Your task to perform on an android device: turn off notifications in google photos Image 0: 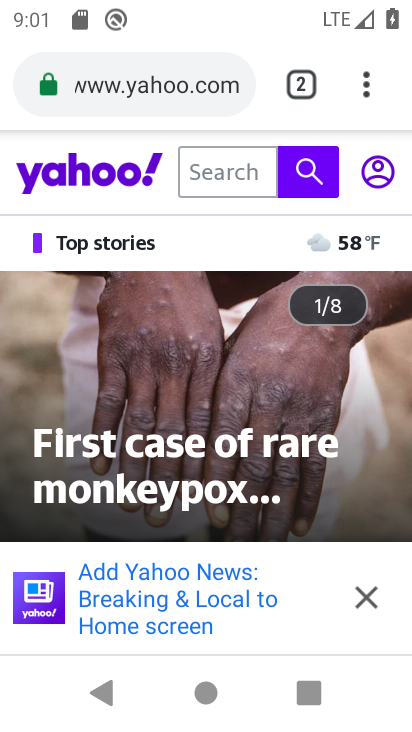
Step 0: press home button
Your task to perform on an android device: turn off notifications in google photos Image 1: 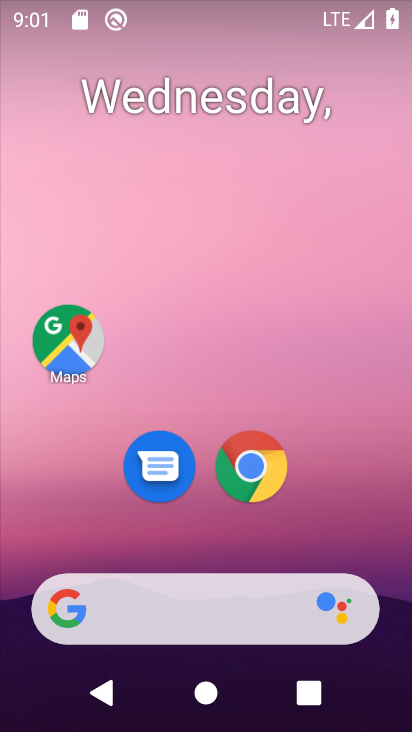
Step 1: drag from (153, 720) to (128, 233)
Your task to perform on an android device: turn off notifications in google photos Image 2: 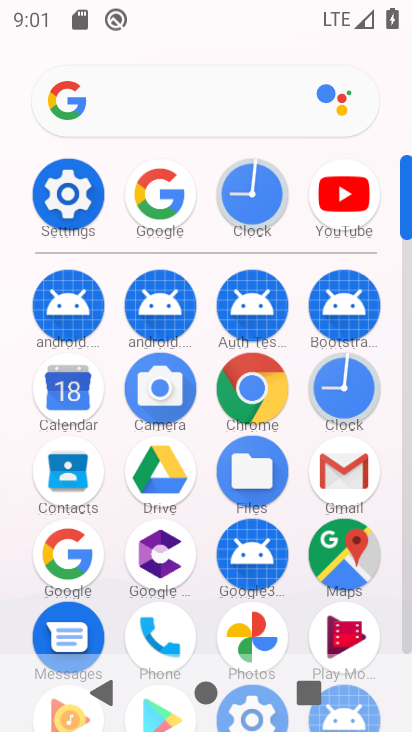
Step 2: click (236, 633)
Your task to perform on an android device: turn off notifications in google photos Image 3: 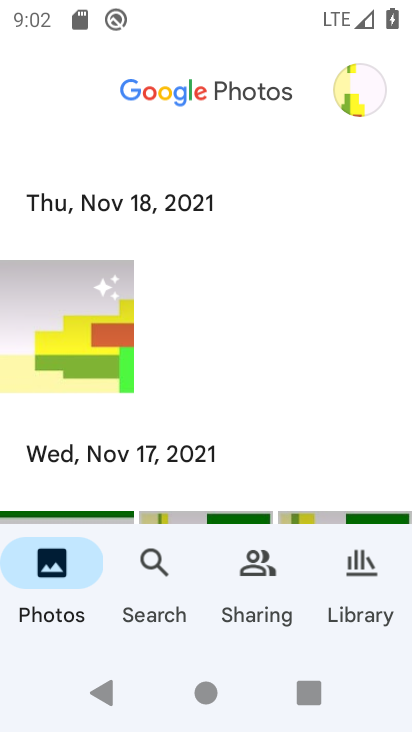
Step 3: click (359, 96)
Your task to perform on an android device: turn off notifications in google photos Image 4: 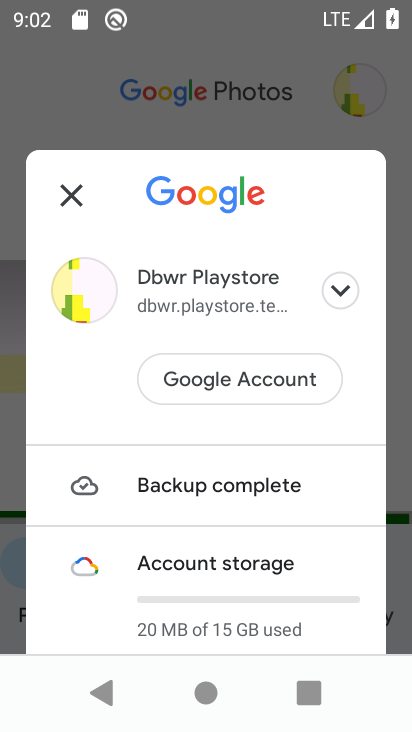
Step 4: drag from (138, 615) to (133, 237)
Your task to perform on an android device: turn off notifications in google photos Image 5: 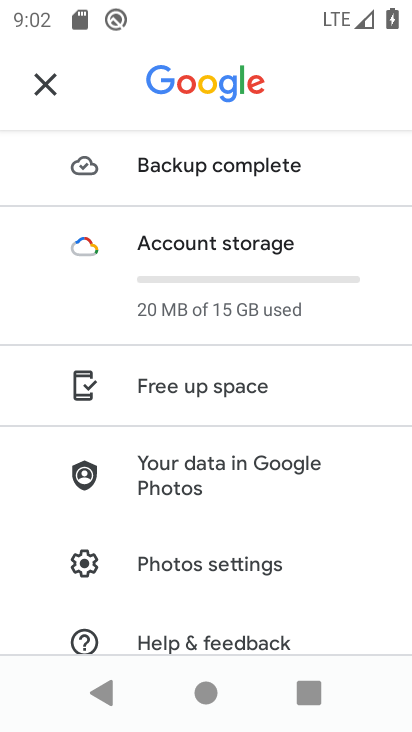
Step 5: drag from (207, 627) to (218, 286)
Your task to perform on an android device: turn off notifications in google photos Image 6: 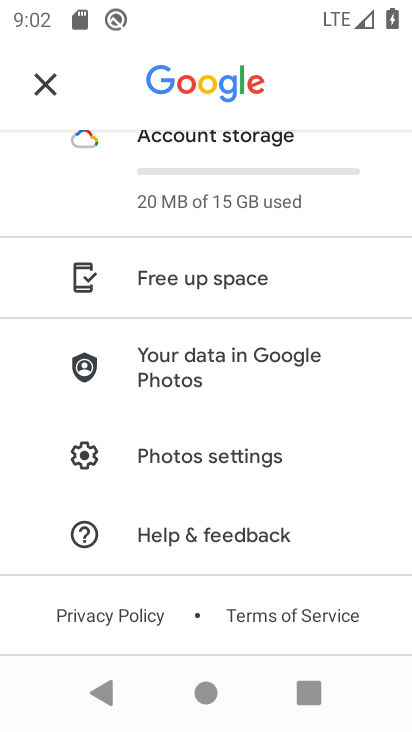
Step 6: drag from (180, 595) to (179, 284)
Your task to perform on an android device: turn off notifications in google photos Image 7: 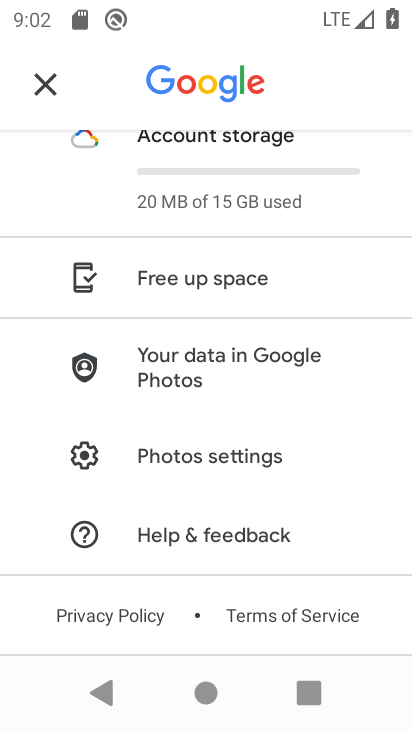
Step 7: drag from (138, 613) to (154, 351)
Your task to perform on an android device: turn off notifications in google photos Image 8: 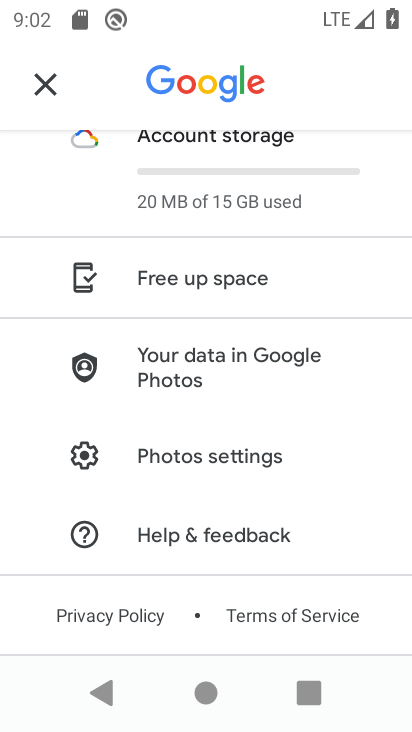
Step 8: click (206, 457)
Your task to perform on an android device: turn off notifications in google photos Image 9: 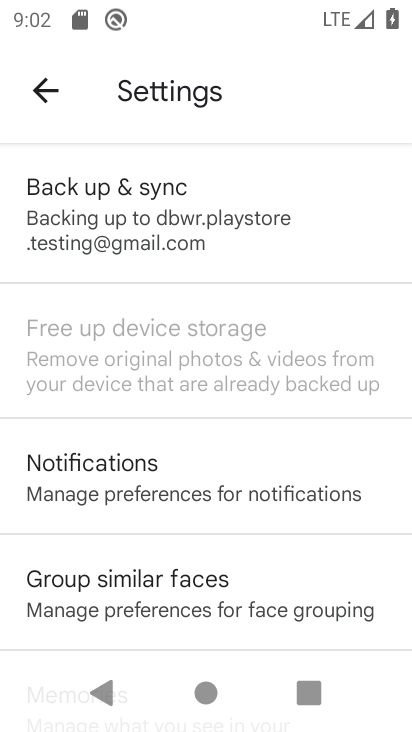
Step 9: drag from (88, 572) to (144, 336)
Your task to perform on an android device: turn off notifications in google photos Image 10: 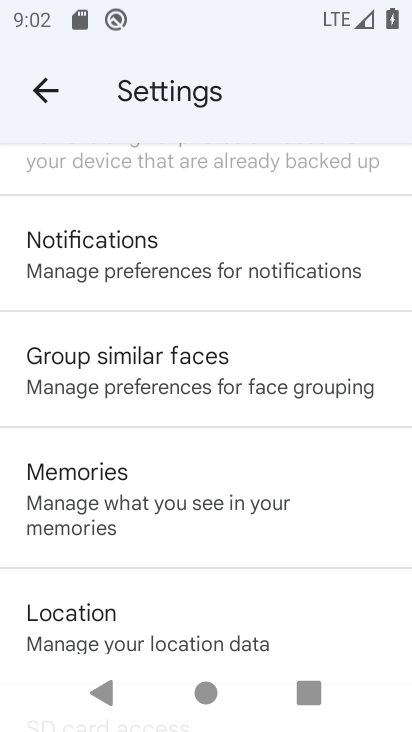
Step 10: click (91, 238)
Your task to perform on an android device: turn off notifications in google photos Image 11: 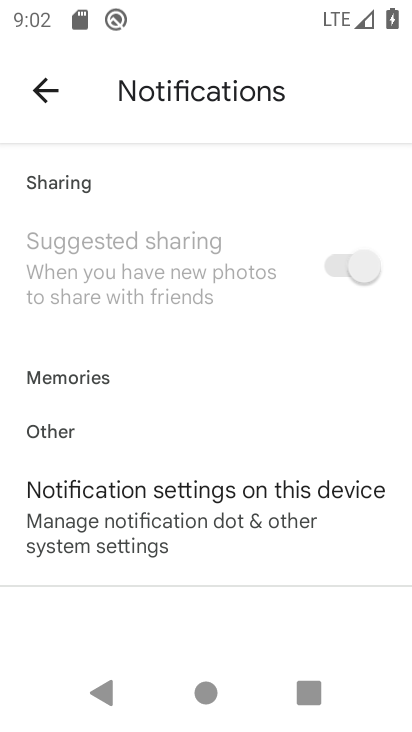
Step 11: drag from (214, 566) to (225, 335)
Your task to perform on an android device: turn off notifications in google photos Image 12: 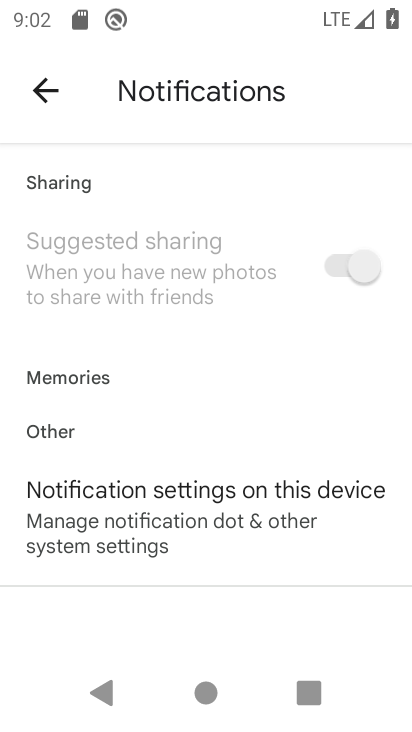
Step 12: click (193, 512)
Your task to perform on an android device: turn off notifications in google photos Image 13: 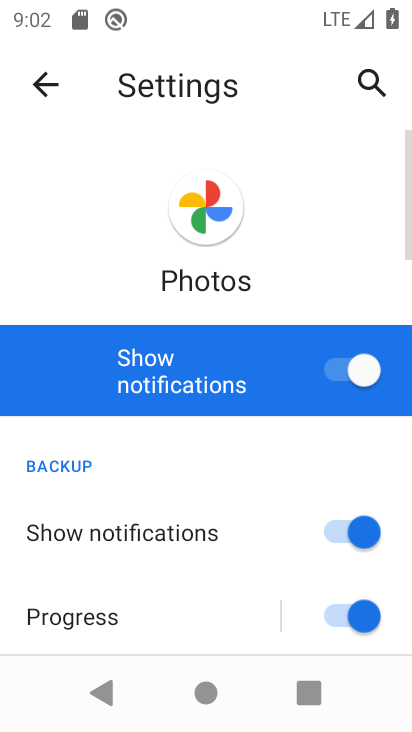
Step 13: click (336, 360)
Your task to perform on an android device: turn off notifications in google photos Image 14: 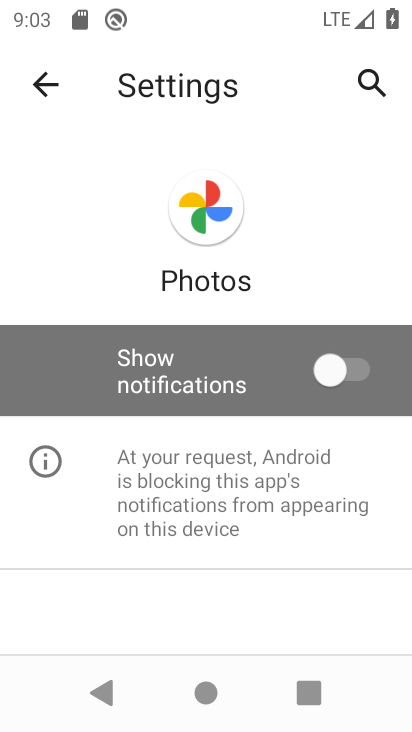
Step 14: task complete